Your task to perform on an android device: Open display settings Image 0: 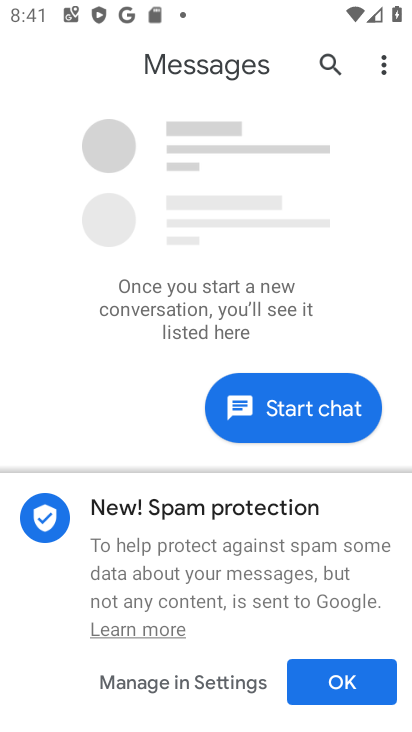
Step 0: press home button
Your task to perform on an android device: Open display settings Image 1: 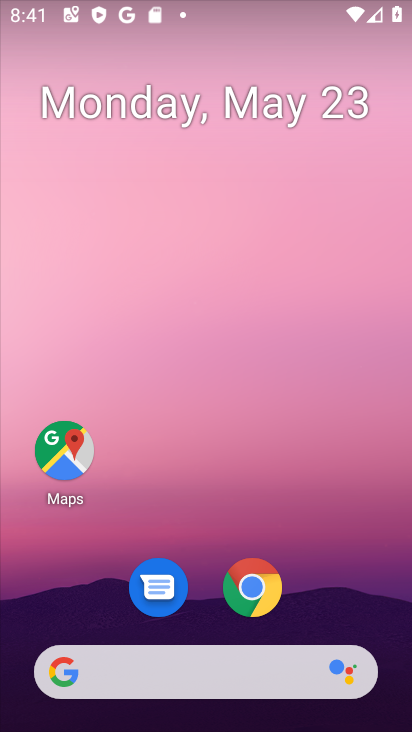
Step 1: drag from (236, 502) to (234, 13)
Your task to perform on an android device: Open display settings Image 2: 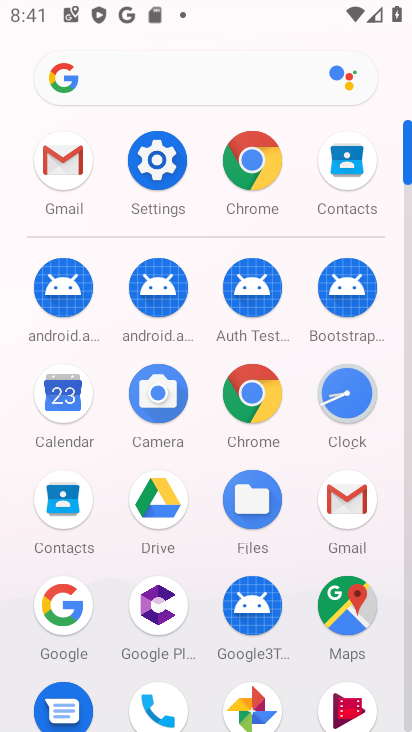
Step 2: click (161, 163)
Your task to perform on an android device: Open display settings Image 3: 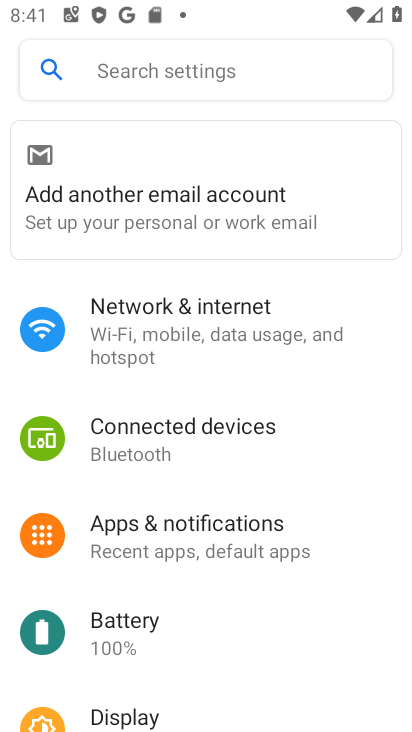
Step 3: click (104, 721)
Your task to perform on an android device: Open display settings Image 4: 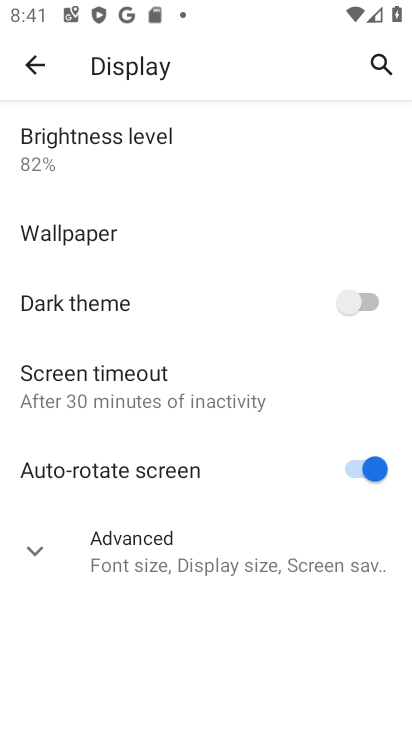
Step 4: task complete